Your task to perform on an android device: Clear the shopping cart on amazon.com. Add "razer nari" to the cart on amazon.com Image 0: 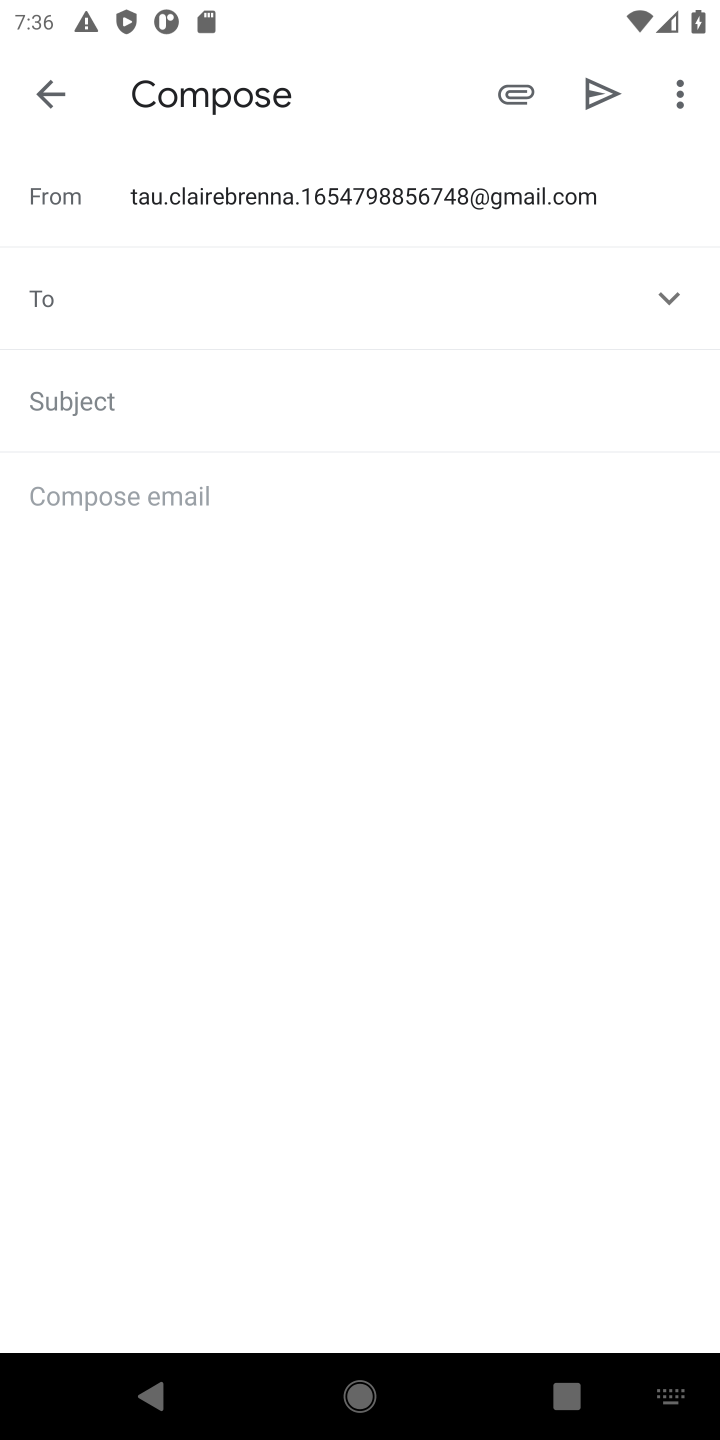
Step 0: task complete